Your task to perform on an android device: What is the news today? Image 0: 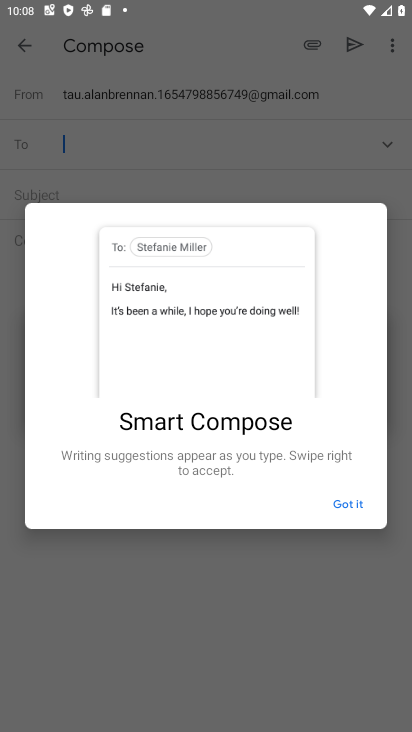
Step 0: click (346, 506)
Your task to perform on an android device: What is the news today? Image 1: 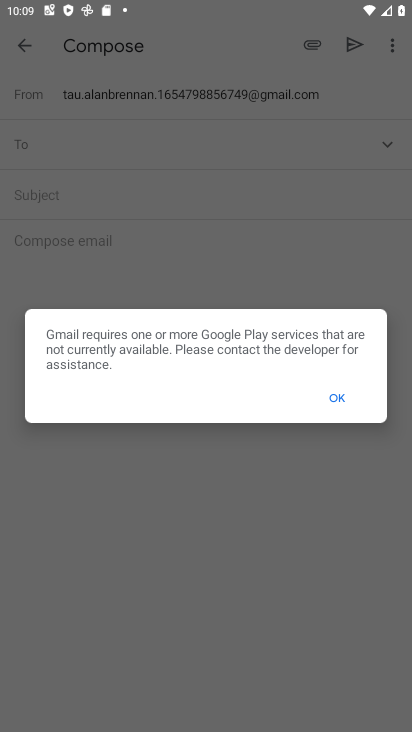
Step 1: click (346, 395)
Your task to perform on an android device: What is the news today? Image 2: 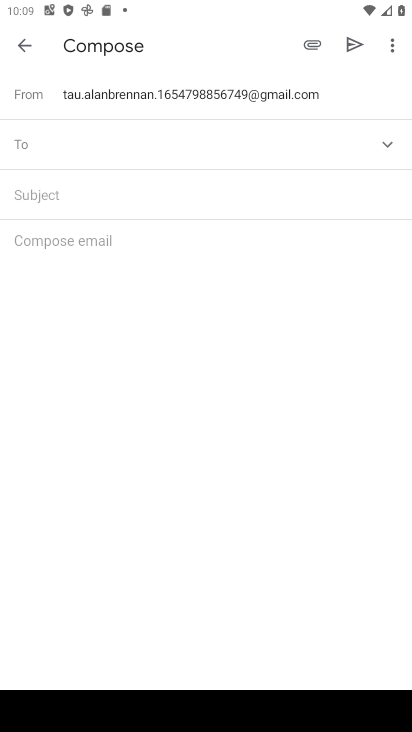
Step 2: click (28, 56)
Your task to perform on an android device: What is the news today? Image 3: 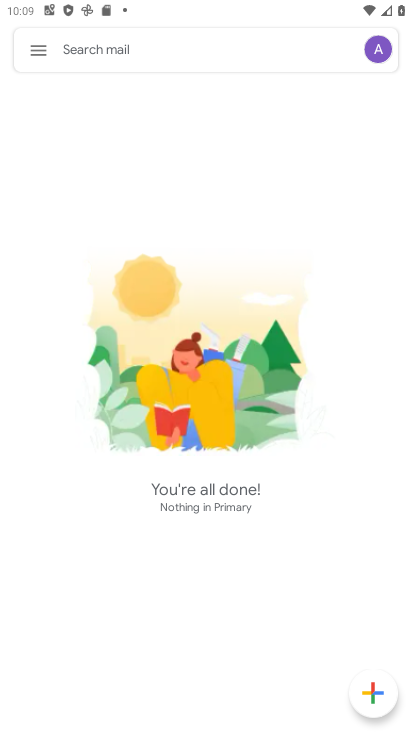
Step 3: press home button
Your task to perform on an android device: What is the news today? Image 4: 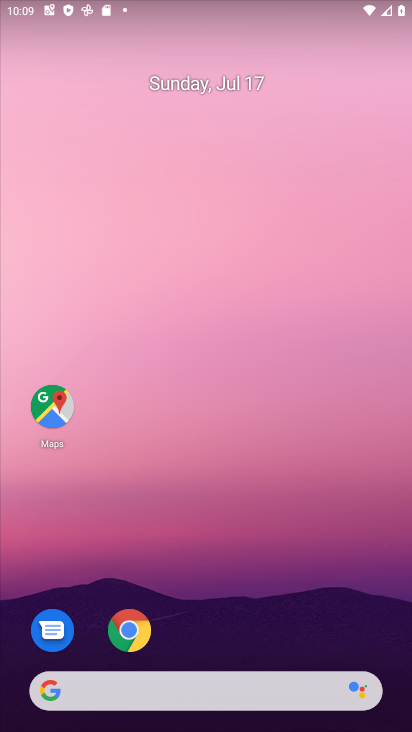
Step 4: drag from (293, 659) to (287, 352)
Your task to perform on an android device: What is the news today? Image 5: 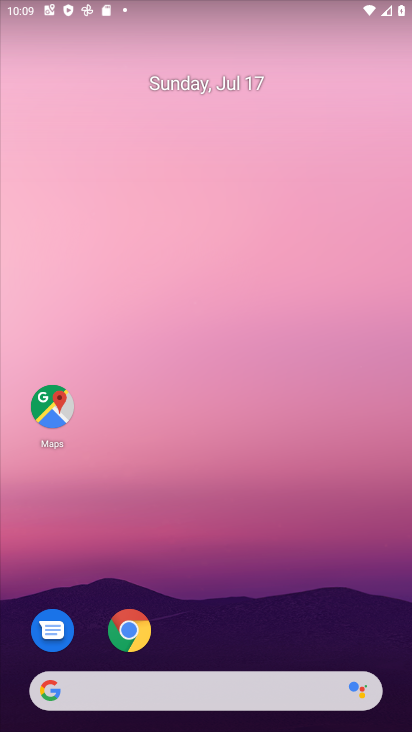
Step 5: drag from (236, 646) to (275, 93)
Your task to perform on an android device: What is the news today? Image 6: 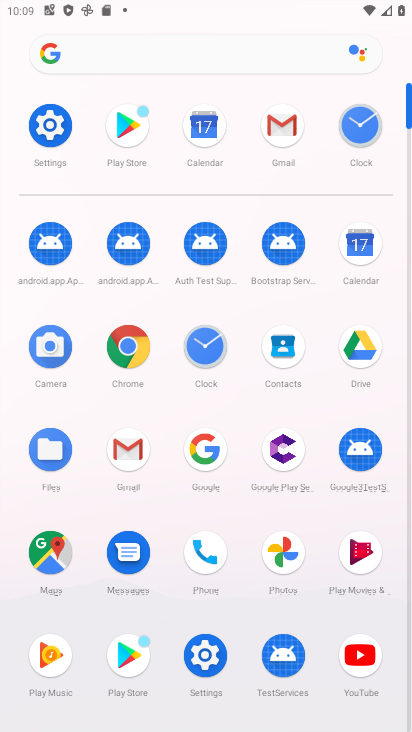
Step 6: click (126, 68)
Your task to perform on an android device: What is the news today? Image 7: 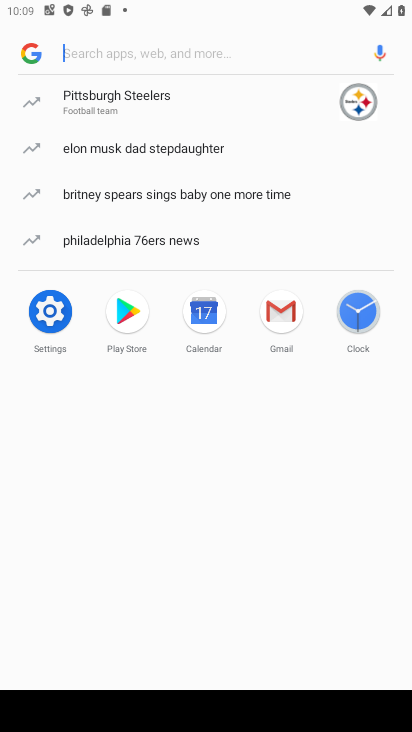
Step 7: type "news"
Your task to perform on an android device: What is the news today? Image 8: 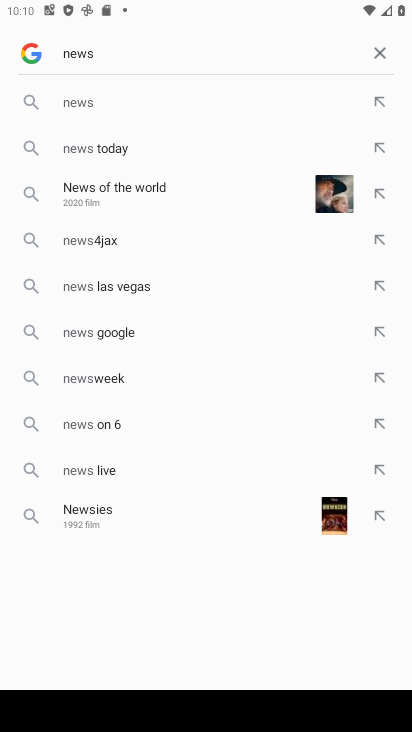
Step 8: click (186, 116)
Your task to perform on an android device: What is the news today? Image 9: 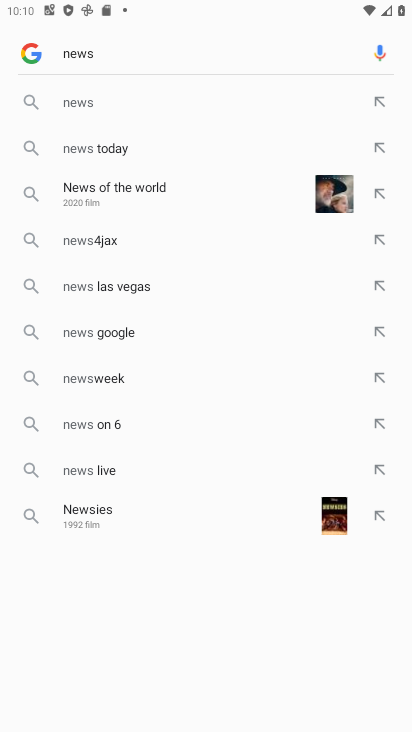
Step 9: task complete